Your task to perform on an android device: toggle improve location accuracy Image 0: 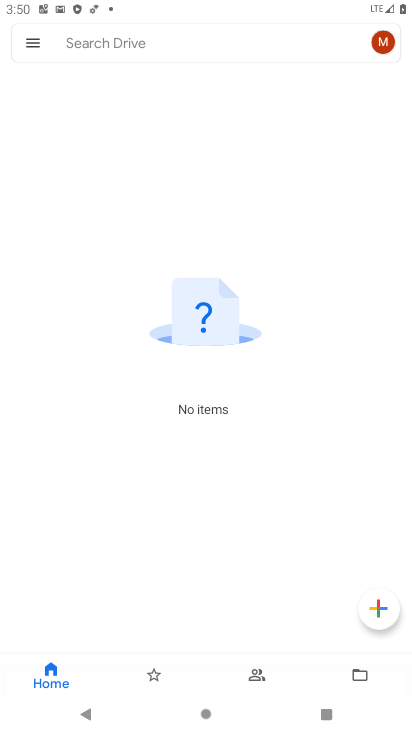
Step 0: press home button
Your task to perform on an android device: toggle improve location accuracy Image 1: 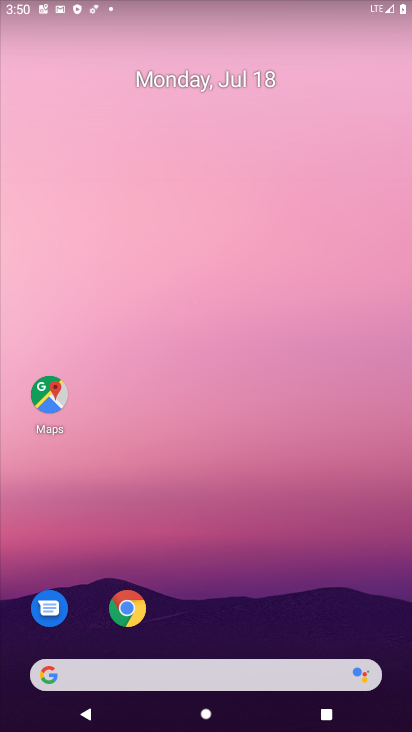
Step 1: drag from (205, 677) to (261, 236)
Your task to perform on an android device: toggle improve location accuracy Image 2: 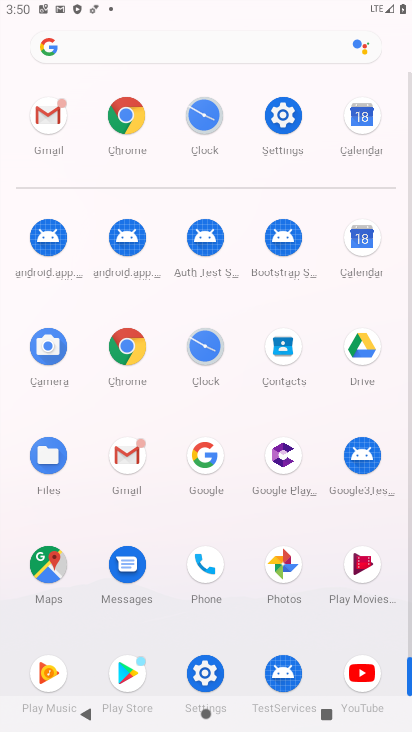
Step 2: click (283, 121)
Your task to perform on an android device: toggle improve location accuracy Image 3: 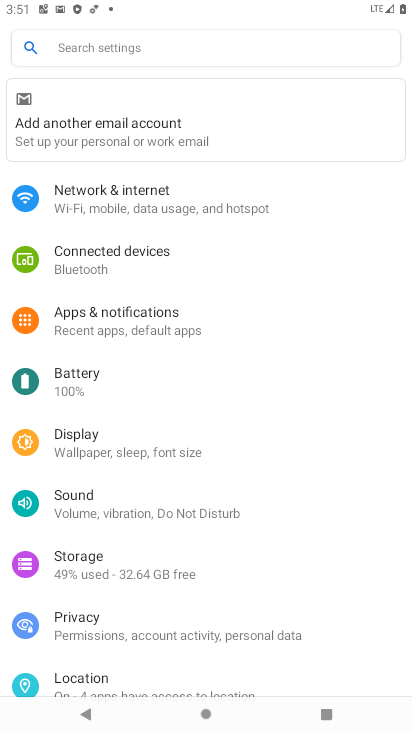
Step 3: drag from (140, 617) to (141, 381)
Your task to perform on an android device: toggle improve location accuracy Image 4: 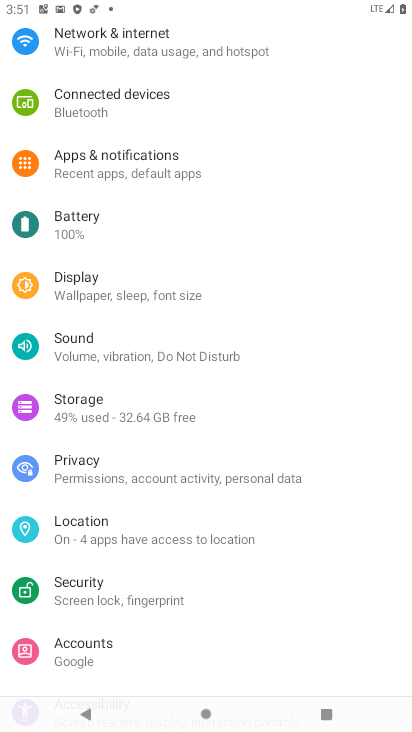
Step 4: click (145, 537)
Your task to perform on an android device: toggle improve location accuracy Image 5: 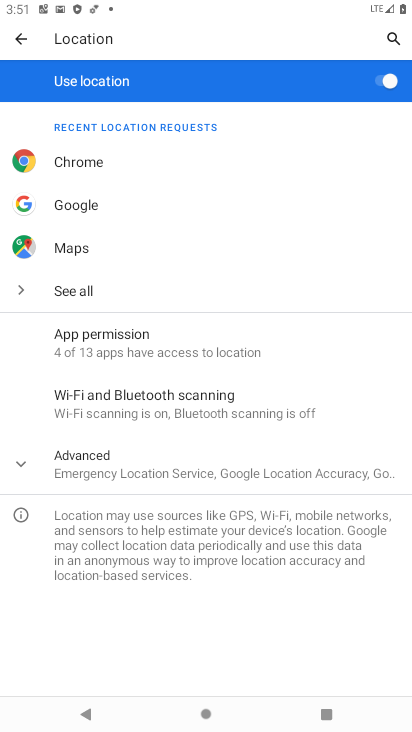
Step 5: click (138, 464)
Your task to perform on an android device: toggle improve location accuracy Image 6: 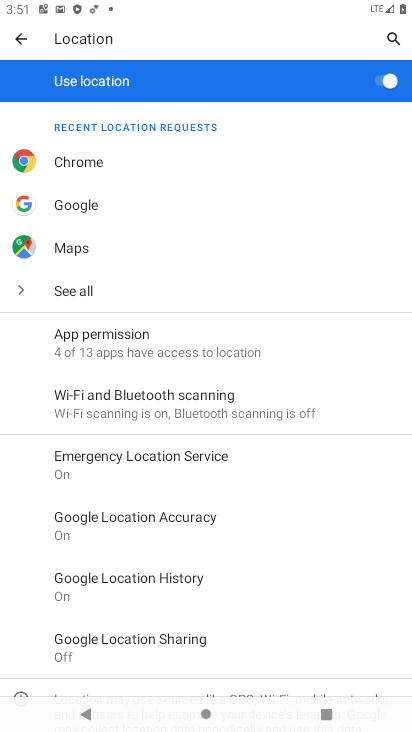
Step 6: click (166, 526)
Your task to perform on an android device: toggle improve location accuracy Image 7: 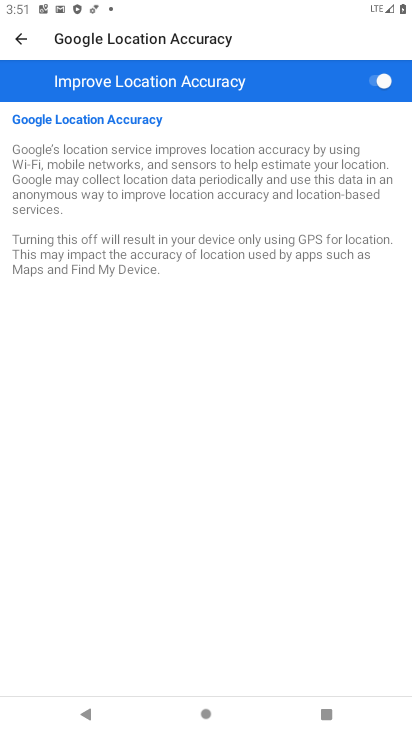
Step 7: click (316, 73)
Your task to perform on an android device: toggle improve location accuracy Image 8: 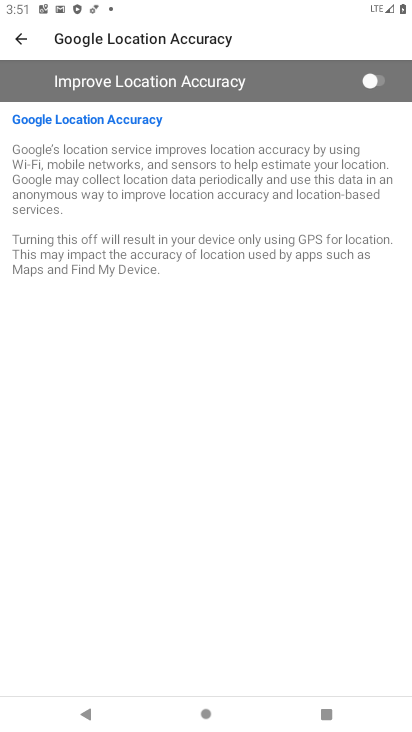
Step 8: task complete